Your task to perform on an android device: turn off wifi Image 0: 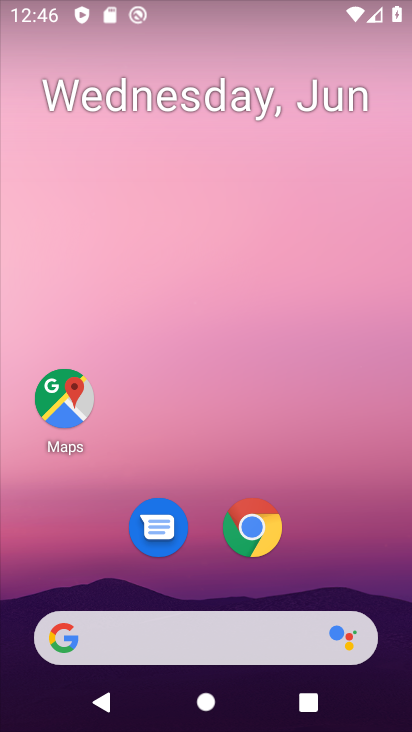
Step 0: drag from (180, 639) to (264, 100)
Your task to perform on an android device: turn off wifi Image 1: 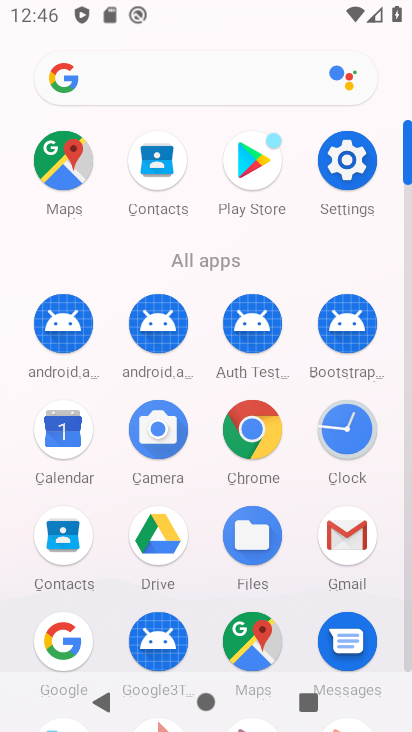
Step 1: click (349, 174)
Your task to perform on an android device: turn off wifi Image 2: 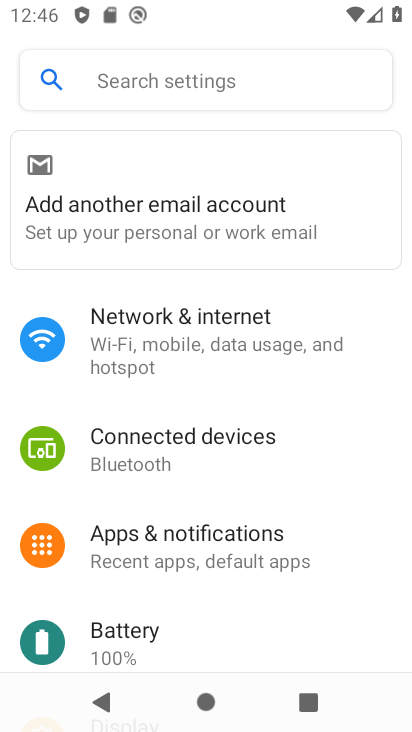
Step 2: click (214, 311)
Your task to perform on an android device: turn off wifi Image 3: 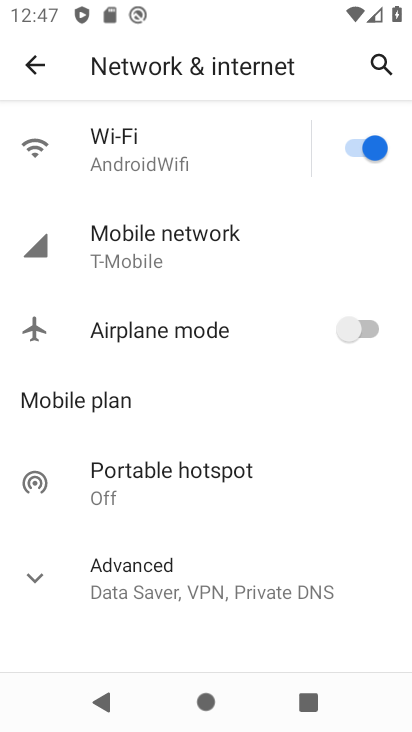
Step 3: click (358, 153)
Your task to perform on an android device: turn off wifi Image 4: 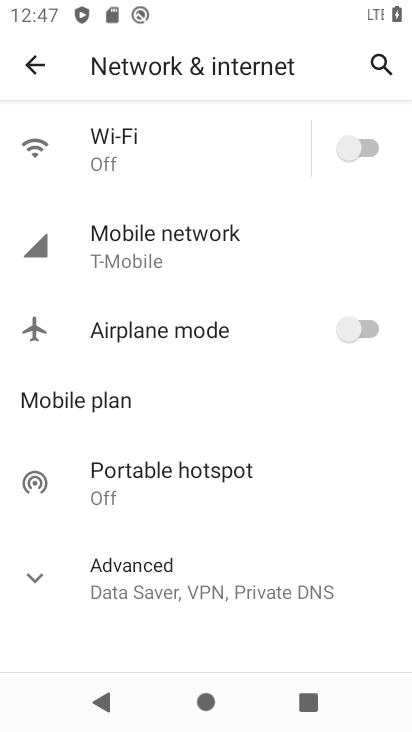
Step 4: task complete